Your task to perform on an android device: turn off priority inbox in the gmail app Image 0: 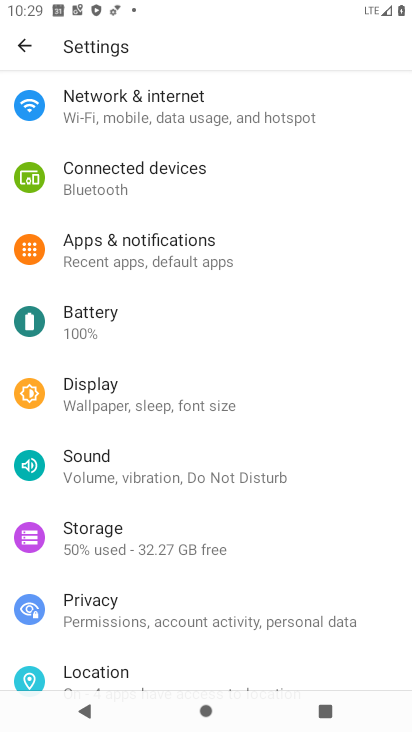
Step 0: press home button
Your task to perform on an android device: turn off priority inbox in the gmail app Image 1: 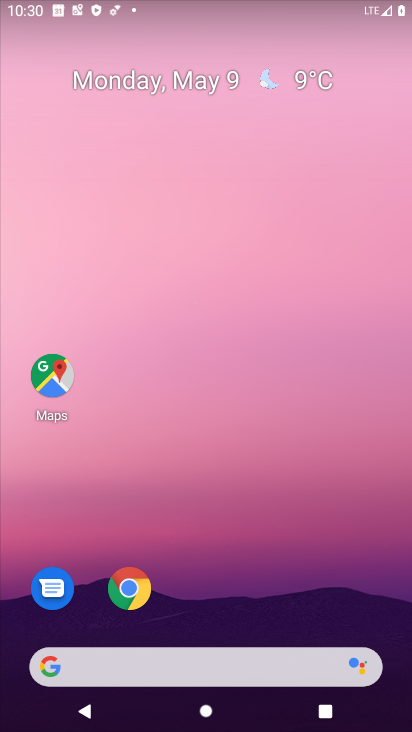
Step 1: drag from (148, 670) to (316, 122)
Your task to perform on an android device: turn off priority inbox in the gmail app Image 2: 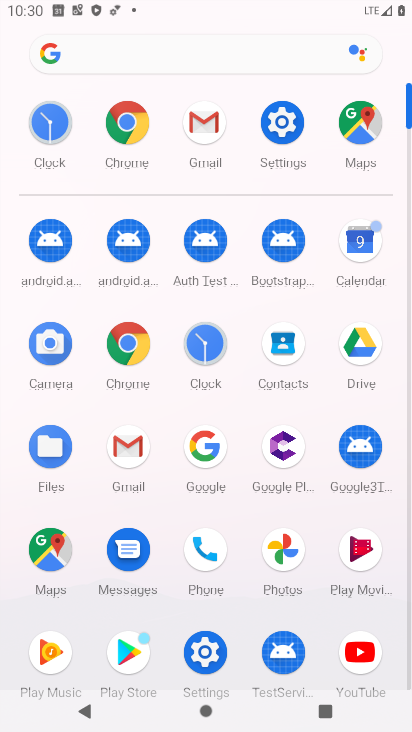
Step 2: click (206, 131)
Your task to perform on an android device: turn off priority inbox in the gmail app Image 3: 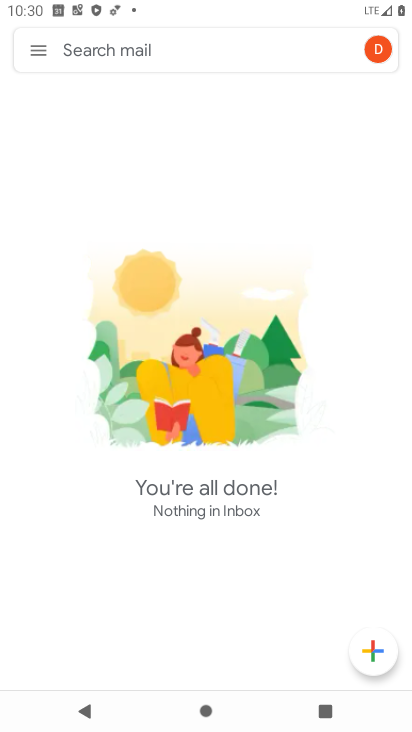
Step 3: click (41, 48)
Your task to perform on an android device: turn off priority inbox in the gmail app Image 4: 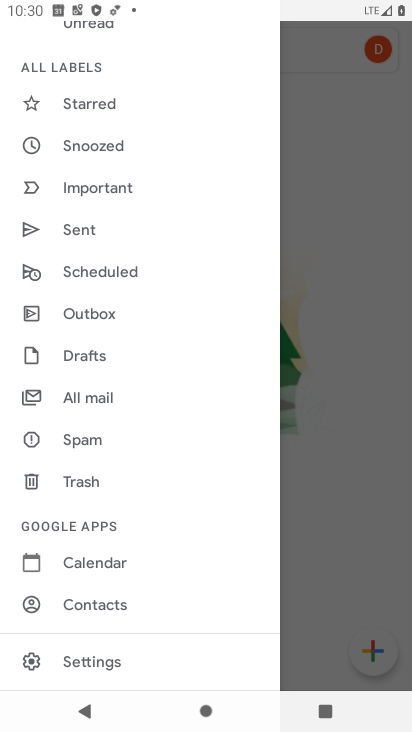
Step 4: click (99, 667)
Your task to perform on an android device: turn off priority inbox in the gmail app Image 5: 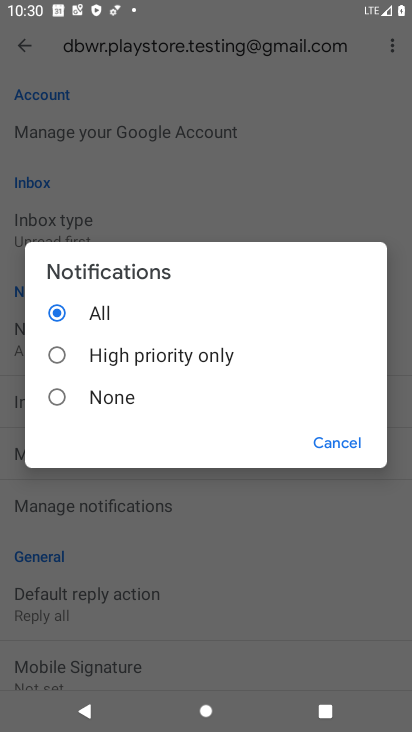
Step 5: click (327, 448)
Your task to perform on an android device: turn off priority inbox in the gmail app Image 6: 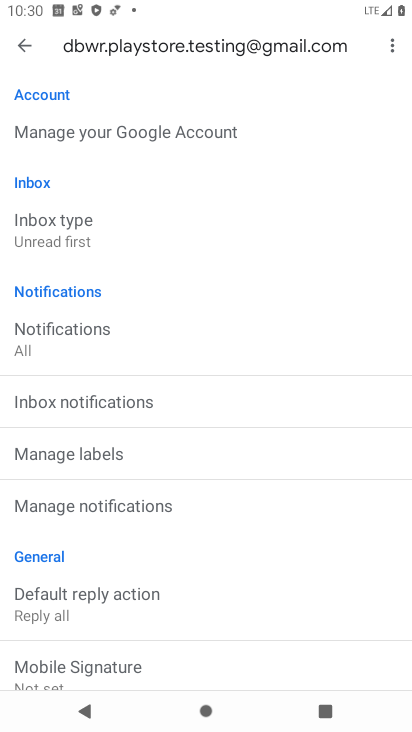
Step 6: drag from (187, 164) to (150, 526)
Your task to perform on an android device: turn off priority inbox in the gmail app Image 7: 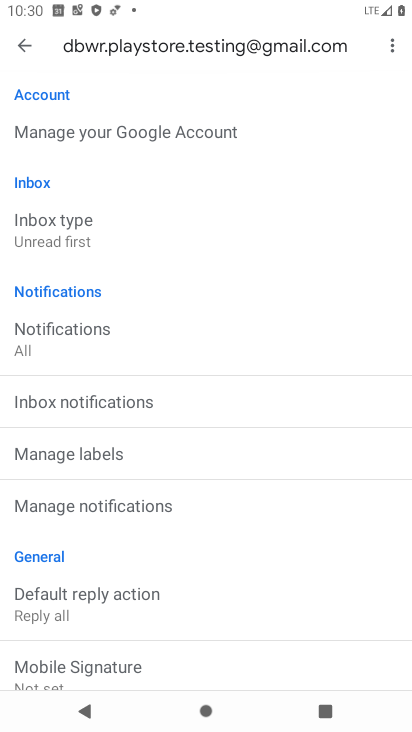
Step 7: click (67, 237)
Your task to perform on an android device: turn off priority inbox in the gmail app Image 8: 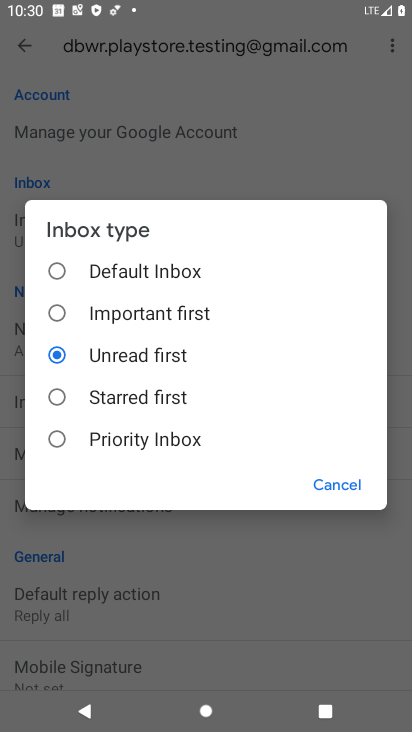
Step 8: task complete